Your task to perform on an android device: Go to wifi settings Image 0: 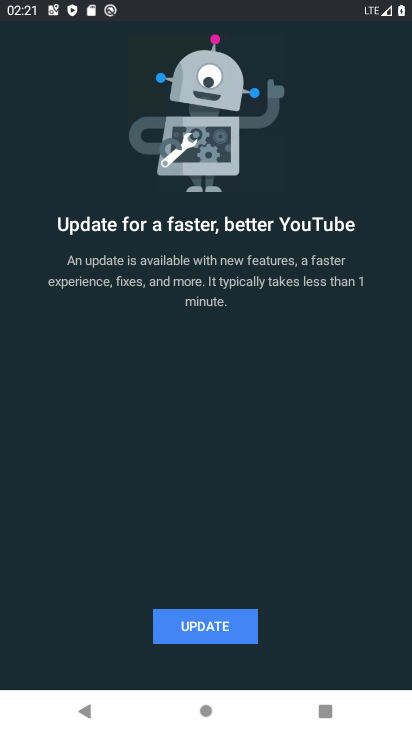
Step 0: press back button
Your task to perform on an android device: Go to wifi settings Image 1: 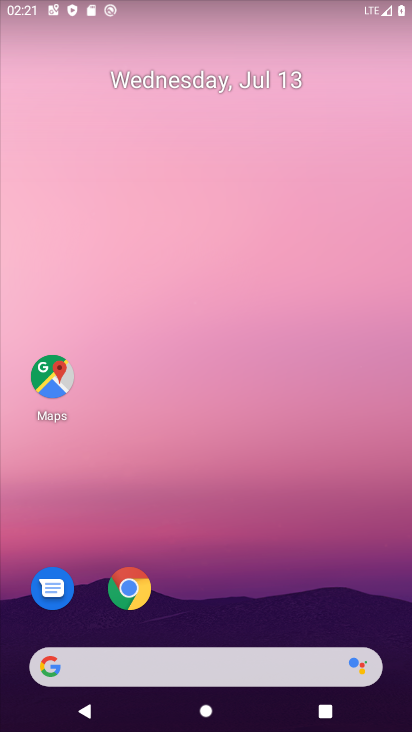
Step 1: drag from (407, 689) to (12, 141)
Your task to perform on an android device: Go to wifi settings Image 2: 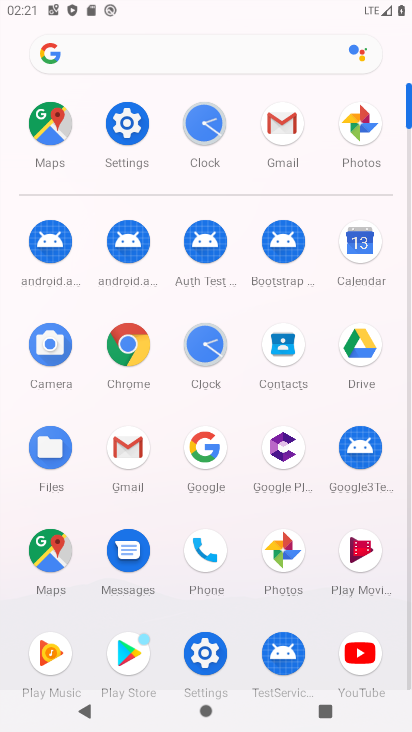
Step 2: click (140, 130)
Your task to perform on an android device: Go to wifi settings Image 3: 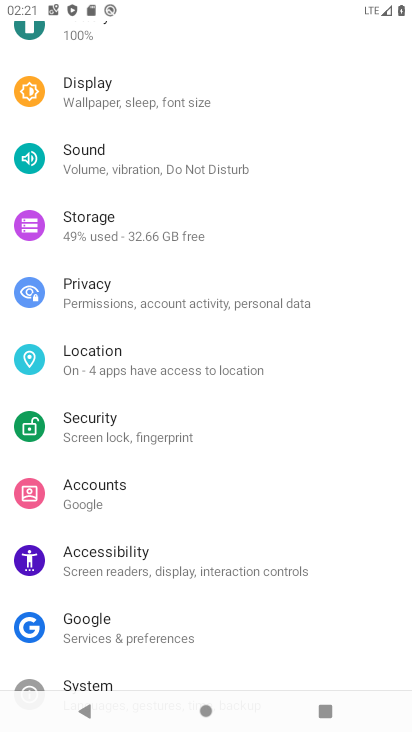
Step 3: drag from (205, 94) to (354, 400)
Your task to perform on an android device: Go to wifi settings Image 4: 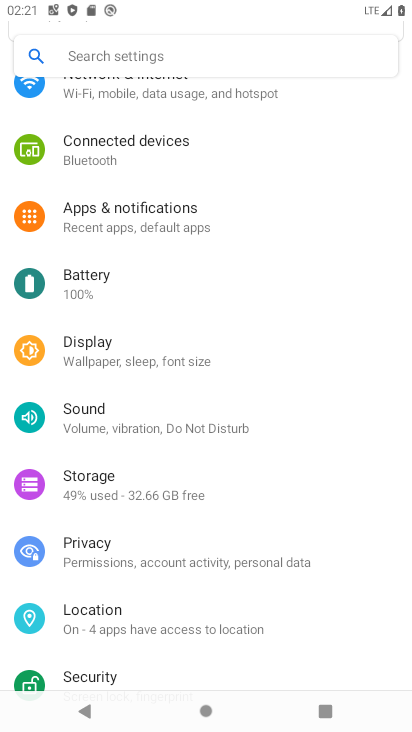
Step 4: click (71, 92)
Your task to perform on an android device: Go to wifi settings Image 5: 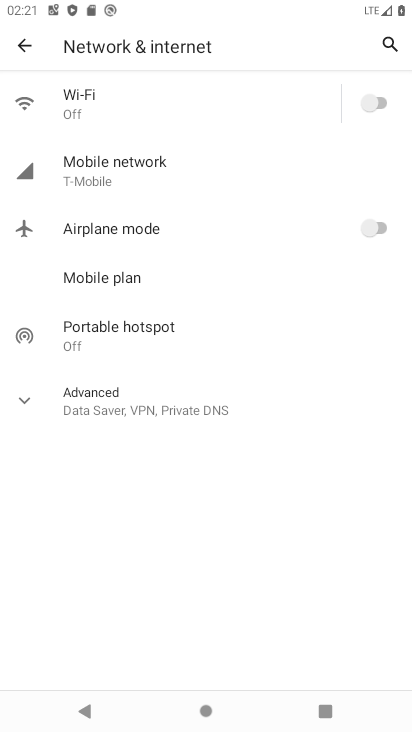
Step 5: click (222, 108)
Your task to perform on an android device: Go to wifi settings Image 6: 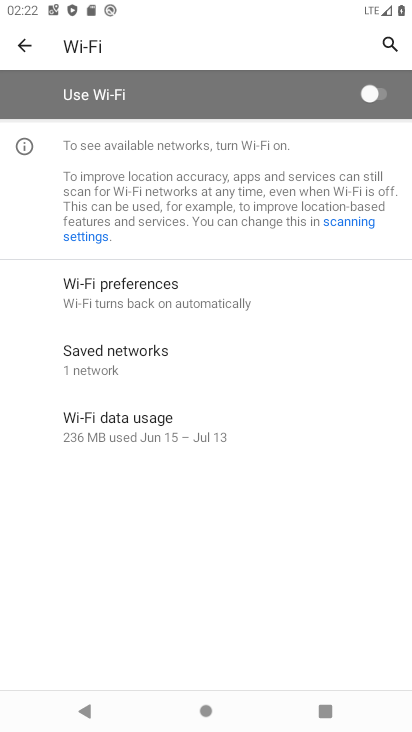
Step 6: click (378, 92)
Your task to perform on an android device: Go to wifi settings Image 7: 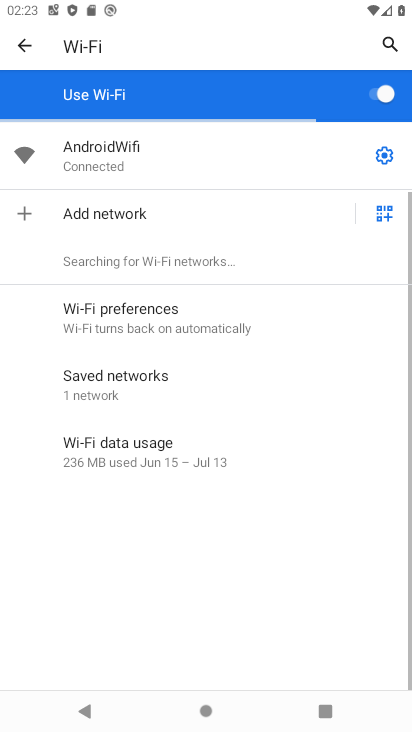
Step 7: click (377, 154)
Your task to perform on an android device: Go to wifi settings Image 8: 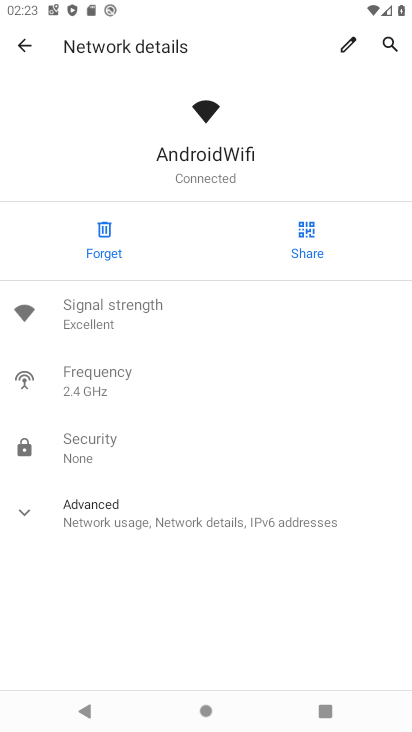
Step 8: task complete